Your task to perform on an android device: check android version Image 0: 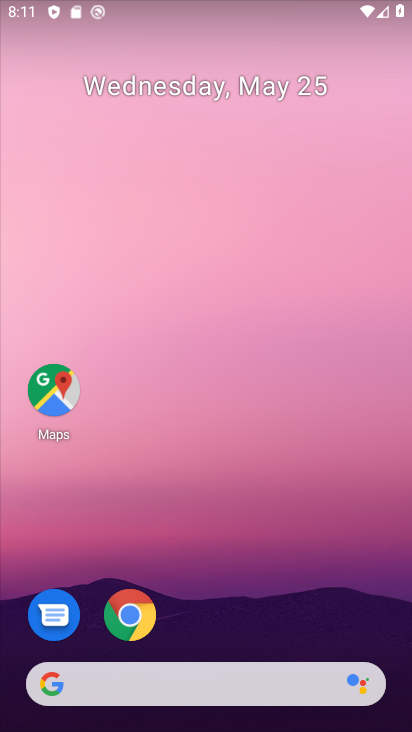
Step 0: drag from (319, 720) to (371, 24)
Your task to perform on an android device: check android version Image 1: 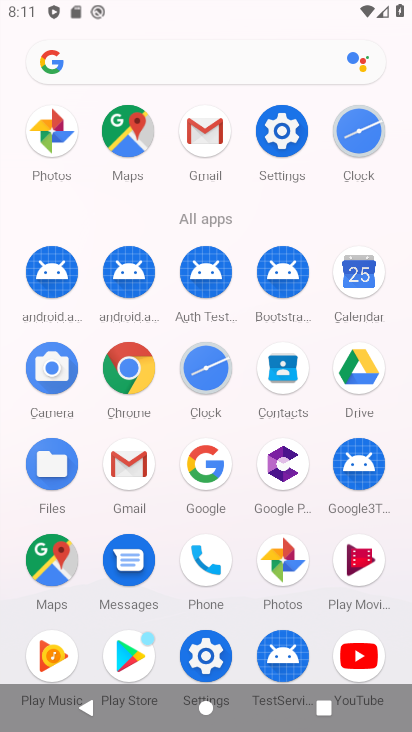
Step 1: click (279, 130)
Your task to perform on an android device: check android version Image 2: 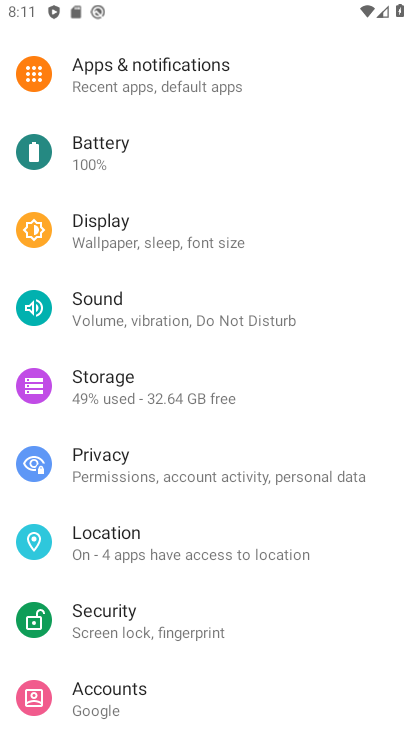
Step 2: drag from (248, 601) to (401, 200)
Your task to perform on an android device: check android version Image 3: 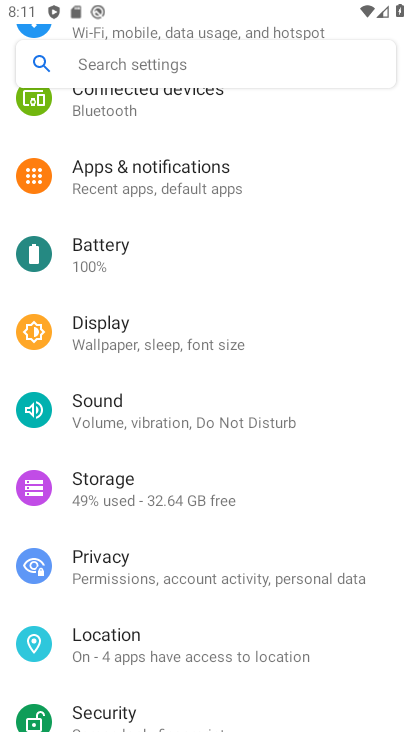
Step 3: drag from (286, 660) to (324, 101)
Your task to perform on an android device: check android version Image 4: 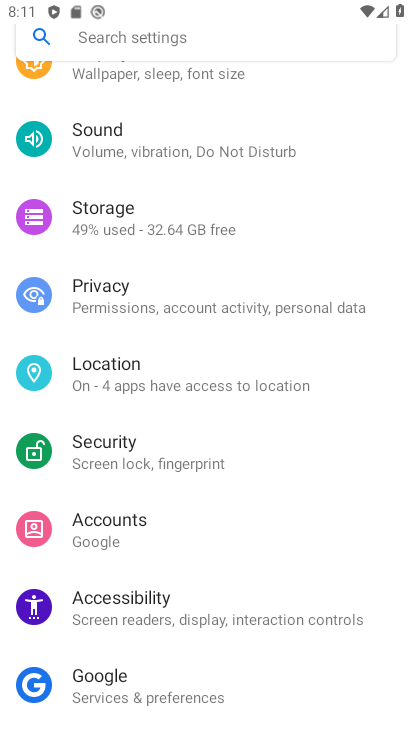
Step 4: drag from (180, 690) to (142, 167)
Your task to perform on an android device: check android version Image 5: 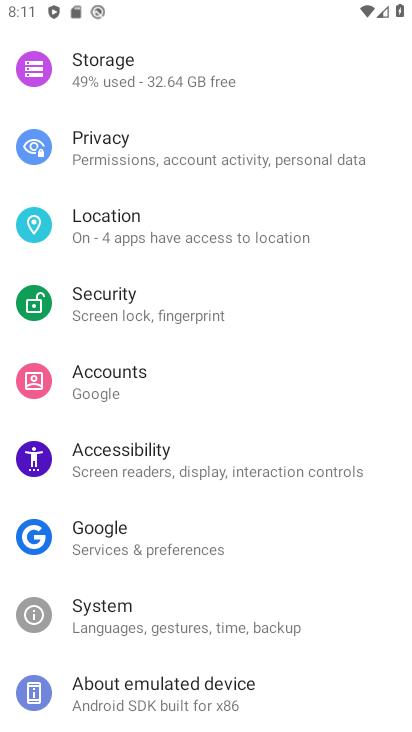
Step 5: click (194, 696)
Your task to perform on an android device: check android version Image 6: 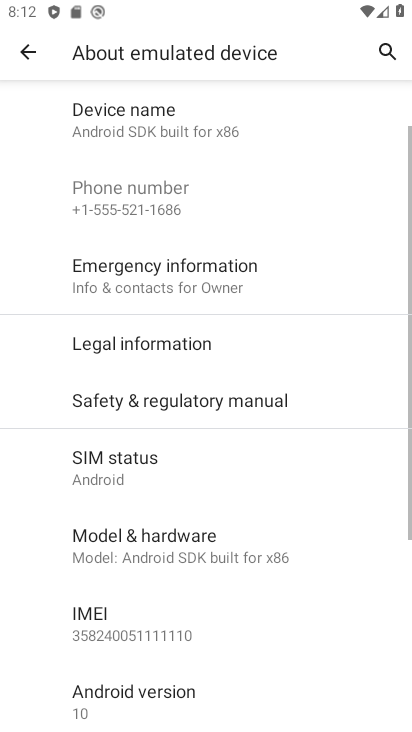
Step 6: task complete